Your task to perform on an android device: toggle location history Image 0: 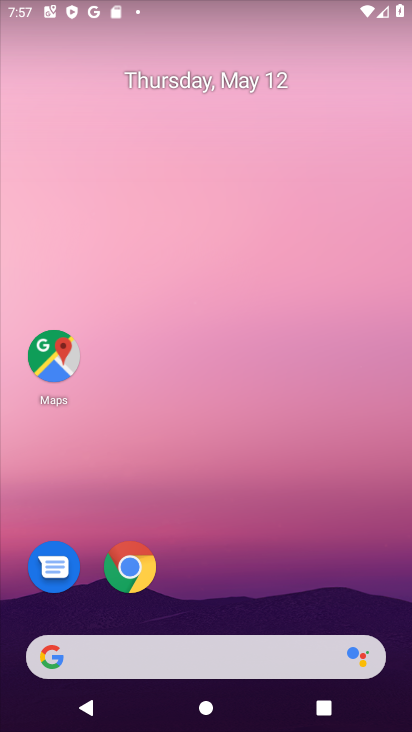
Step 0: drag from (268, 537) to (280, 187)
Your task to perform on an android device: toggle location history Image 1: 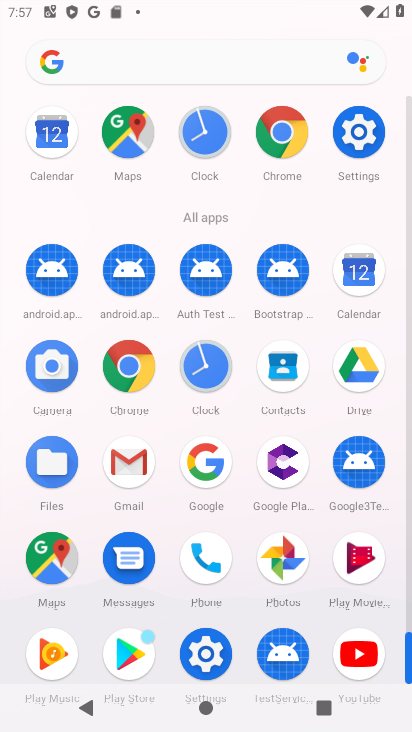
Step 1: click (362, 155)
Your task to perform on an android device: toggle location history Image 2: 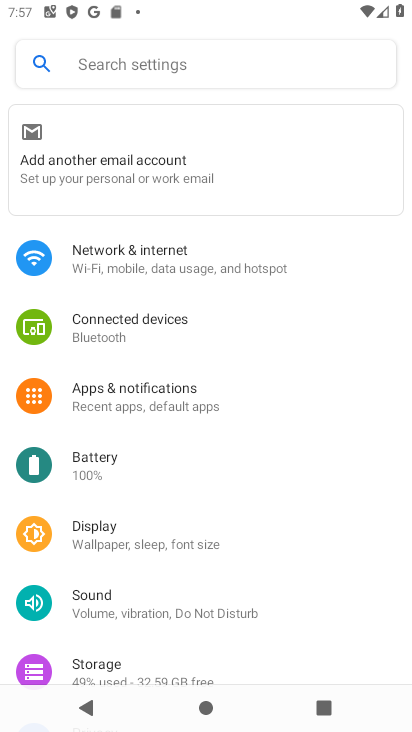
Step 2: drag from (142, 556) to (252, 257)
Your task to perform on an android device: toggle location history Image 3: 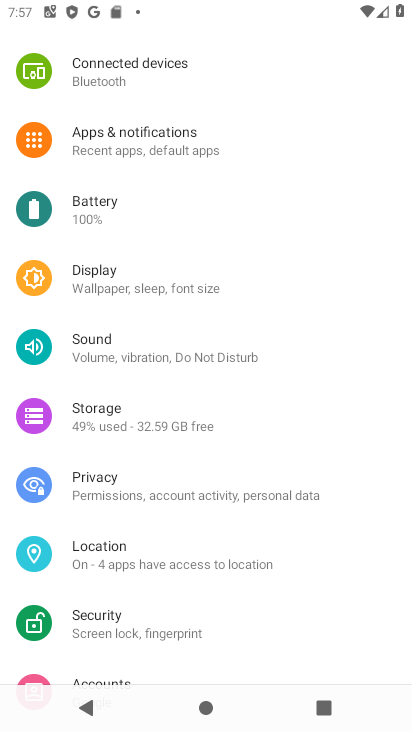
Step 3: click (227, 538)
Your task to perform on an android device: toggle location history Image 4: 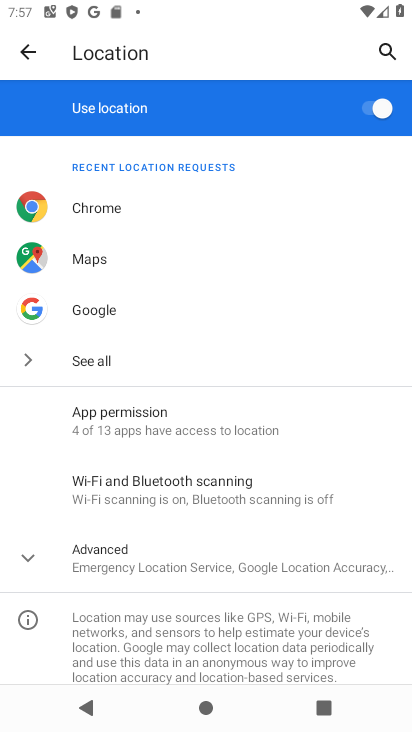
Step 4: click (146, 559)
Your task to perform on an android device: toggle location history Image 5: 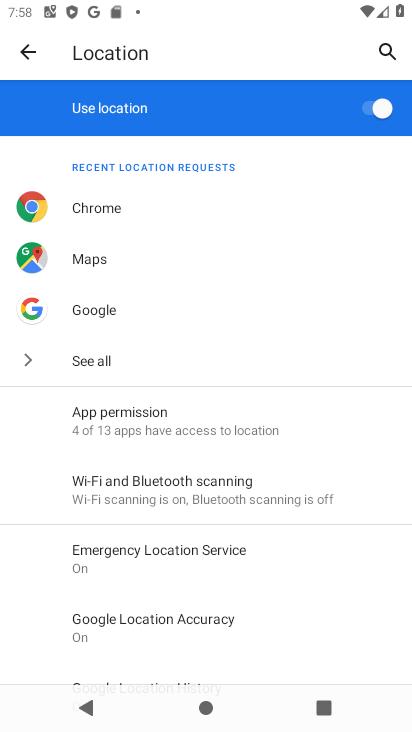
Step 5: drag from (136, 626) to (209, 215)
Your task to perform on an android device: toggle location history Image 6: 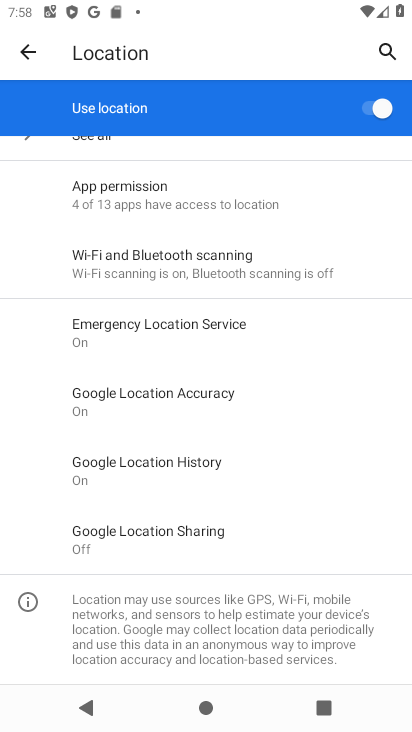
Step 6: click (186, 478)
Your task to perform on an android device: toggle location history Image 7: 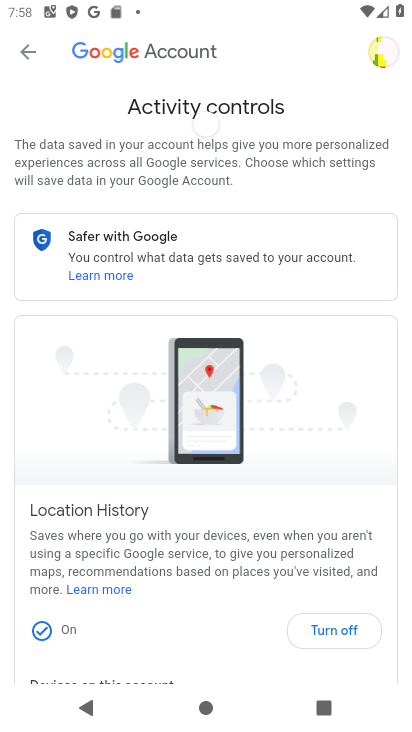
Step 7: drag from (265, 556) to (265, 301)
Your task to perform on an android device: toggle location history Image 8: 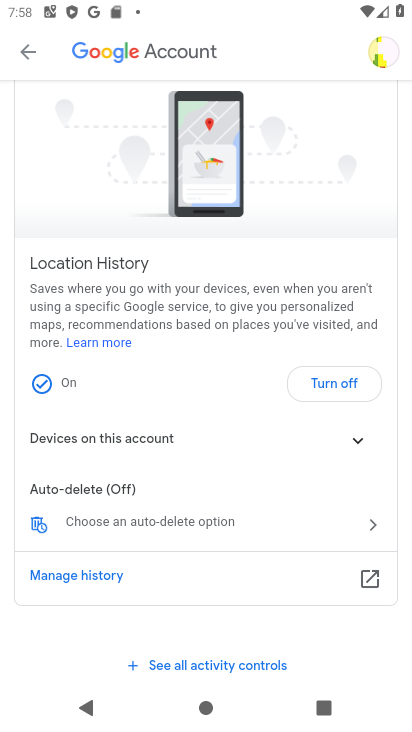
Step 8: click (339, 368)
Your task to perform on an android device: toggle location history Image 9: 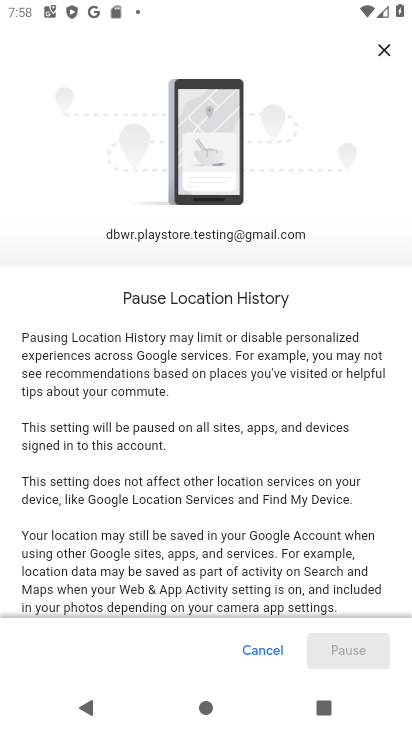
Step 9: drag from (231, 471) to (306, 51)
Your task to perform on an android device: toggle location history Image 10: 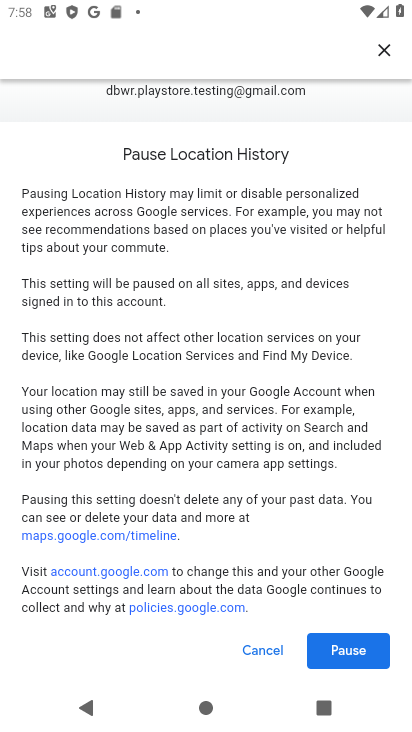
Step 10: click (372, 648)
Your task to perform on an android device: toggle location history Image 11: 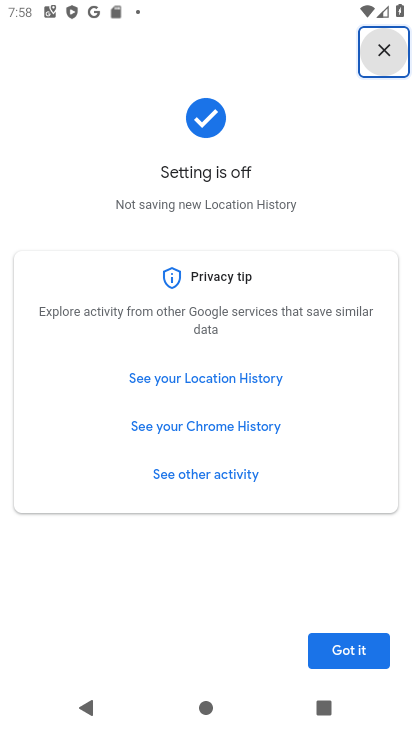
Step 11: click (377, 650)
Your task to perform on an android device: toggle location history Image 12: 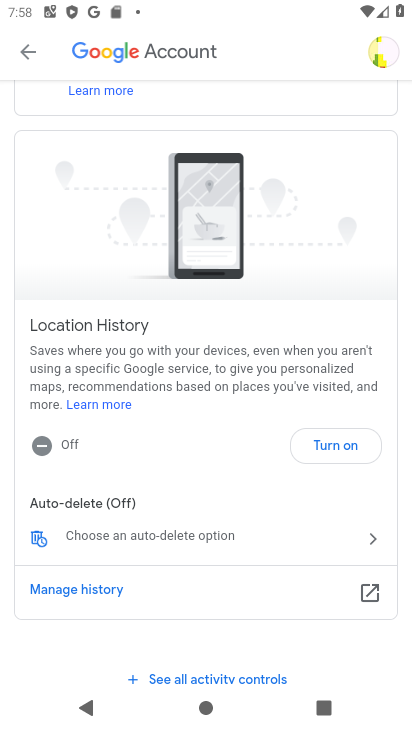
Step 12: task complete